Your task to perform on an android device: Search for vegetarian restaurants on Maps Image 0: 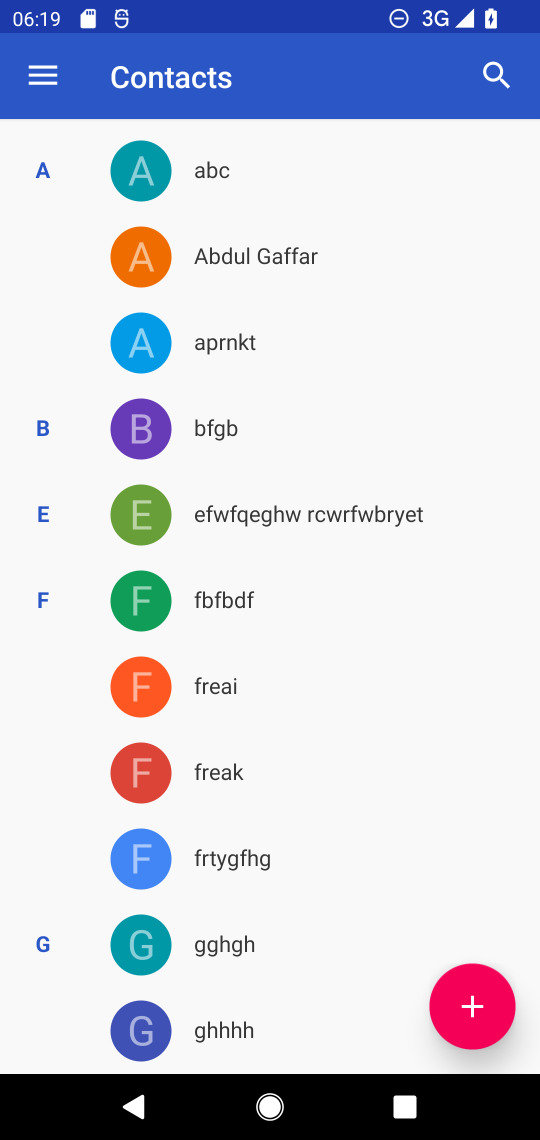
Step 0: press home button
Your task to perform on an android device: Search for vegetarian restaurants on Maps Image 1: 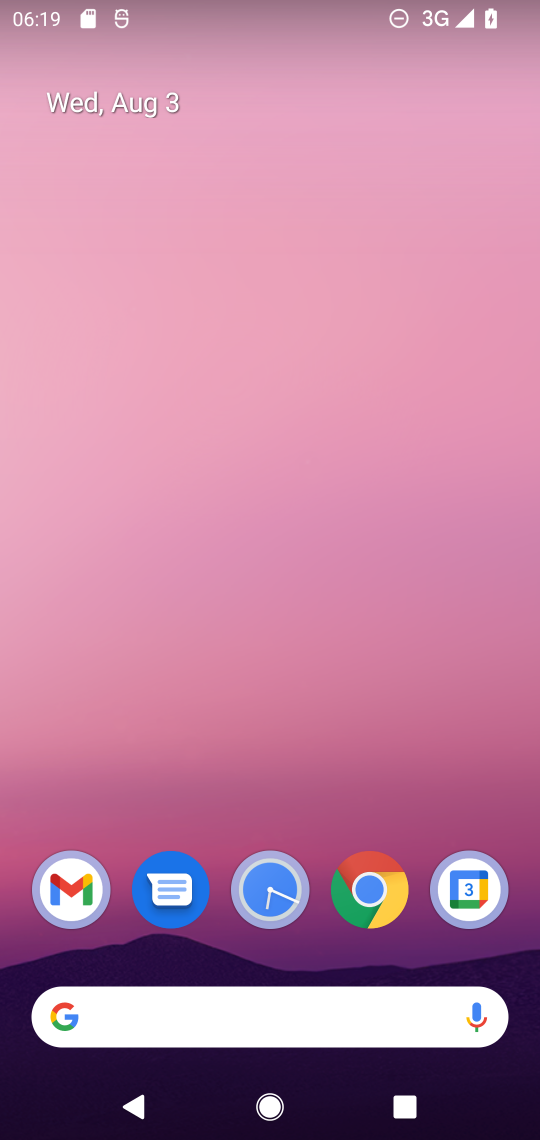
Step 1: drag from (305, 641) to (281, 48)
Your task to perform on an android device: Search for vegetarian restaurants on Maps Image 2: 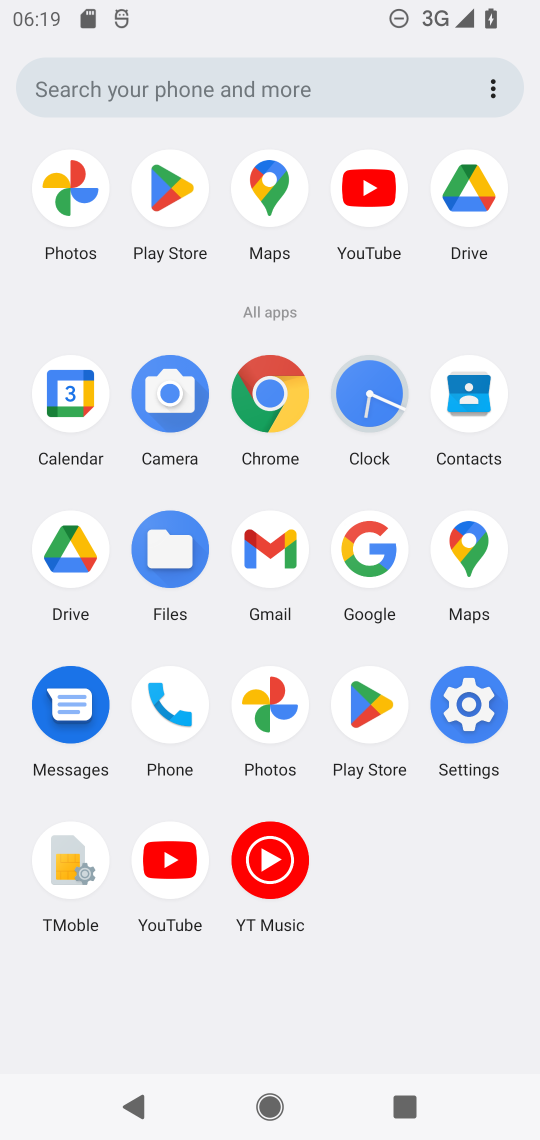
Step 2: click (472, 533)
Your task to perform on an android device: Search for vegetarian restaurants on Maps Image 3: 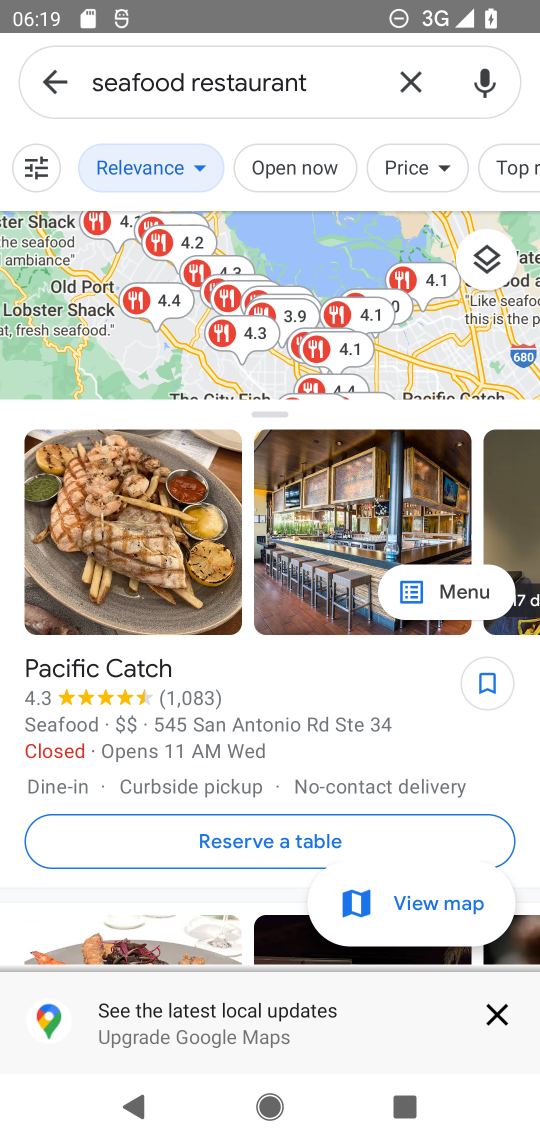
Step 3: click (414, 82)
Your task to perform on an android device: Search for vegetarian restaurants on Maps Image 4: 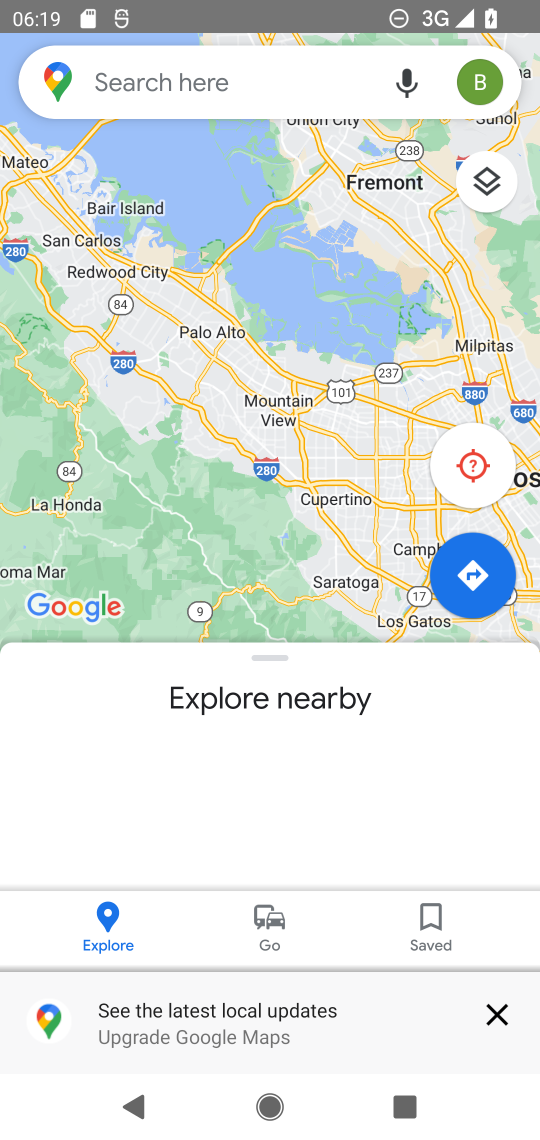
Step 4: click (330, 79)
Your task to perform on an android device: Search for vegetarian restaurants on Maps Image 5: 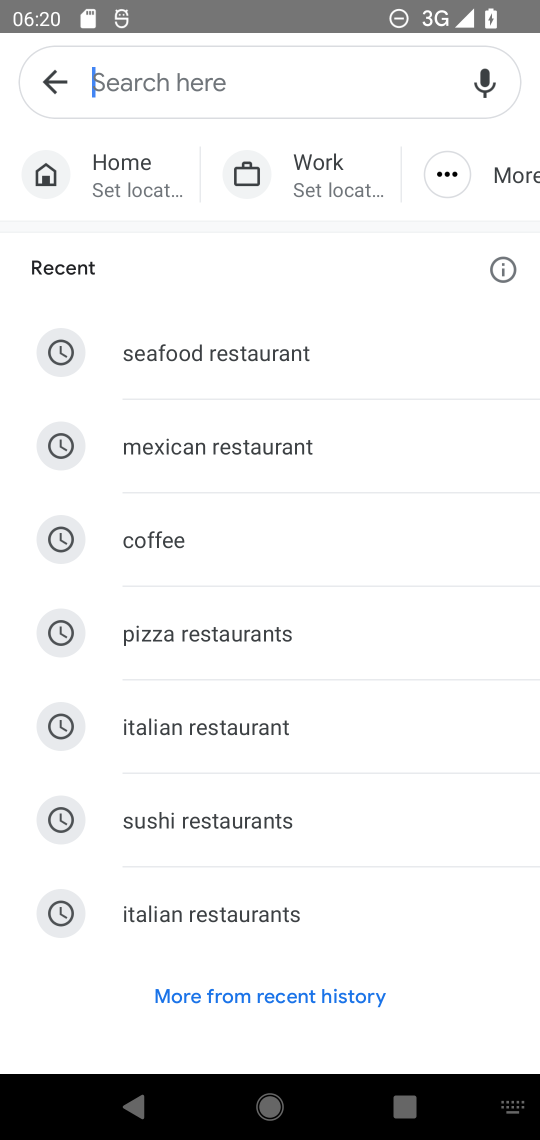
Step 5: type "vegetarian restaurants"
Your task to perform on an android device: Search for vegetarian restaurants on Maps Image 6: 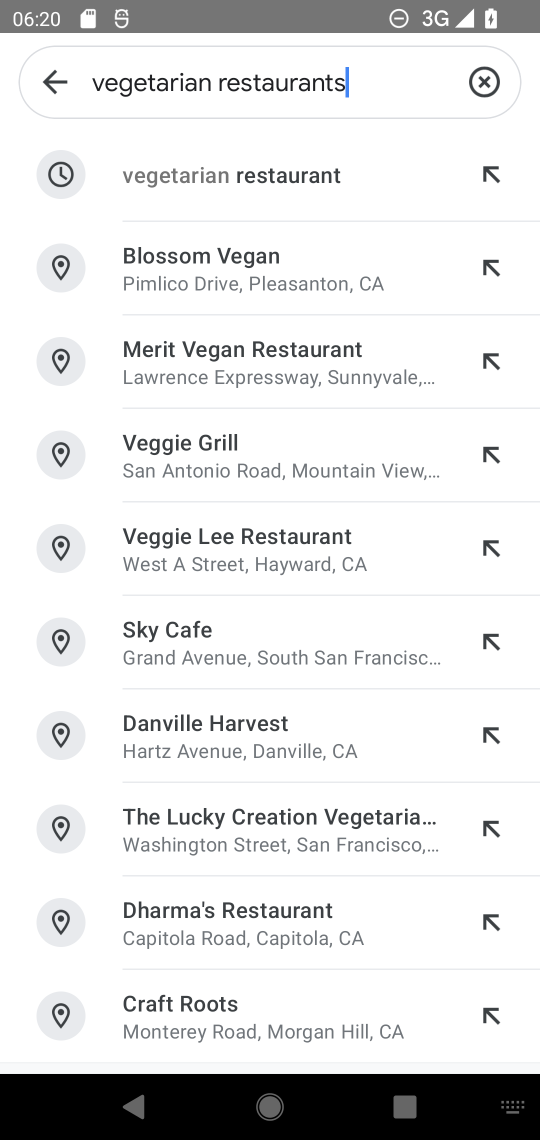
Step 6: click (285, 170)
Your task to perform on an android device: Search for vegetarian restaurants on Maps Image 7: 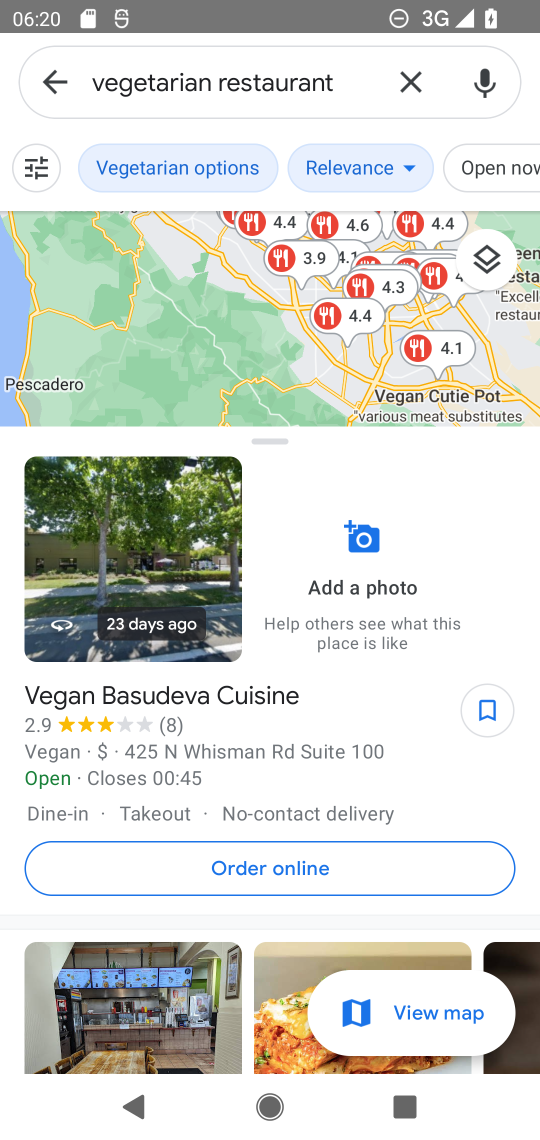
Step 7: task complete